Your task to perform on an android device: Check the weather Image 0: 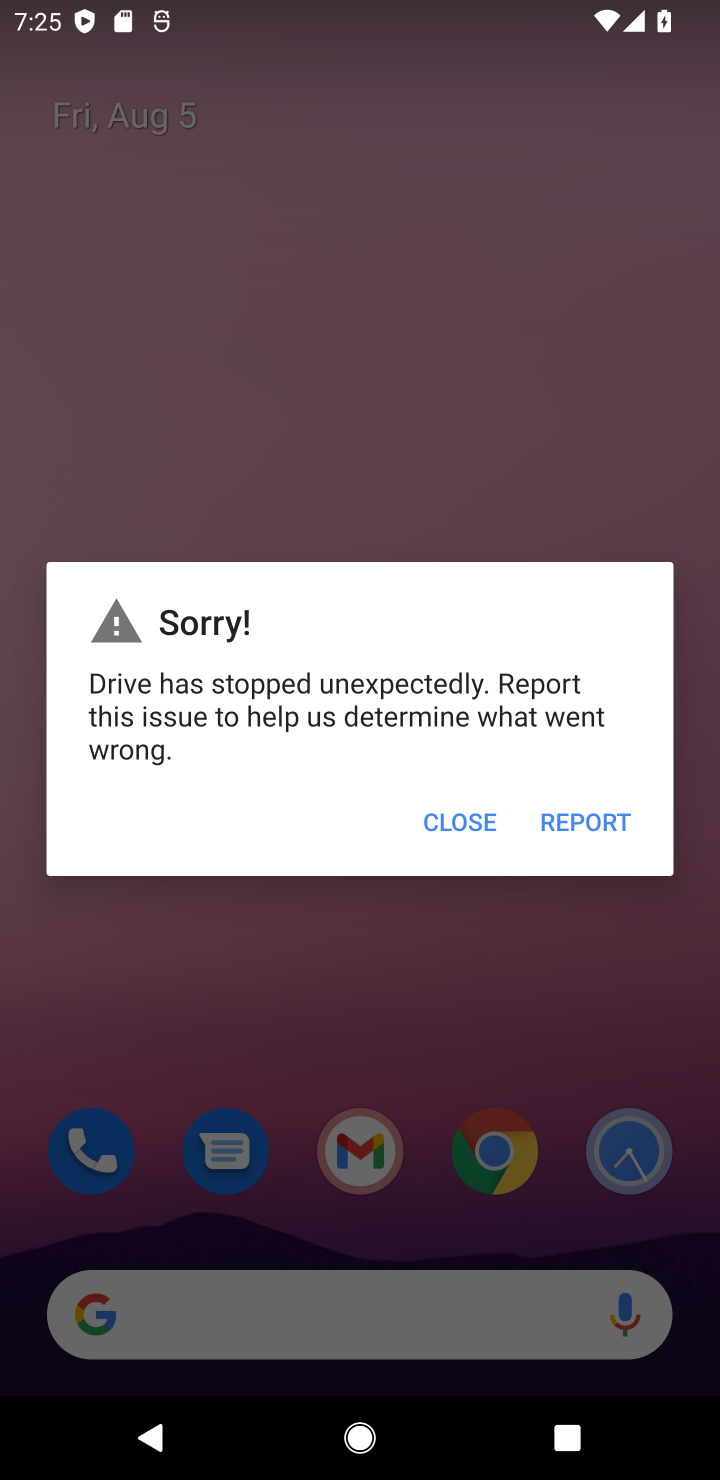
Step 0: click (459, 825)
Your task to perform on an android device: Check the weather Image 1: 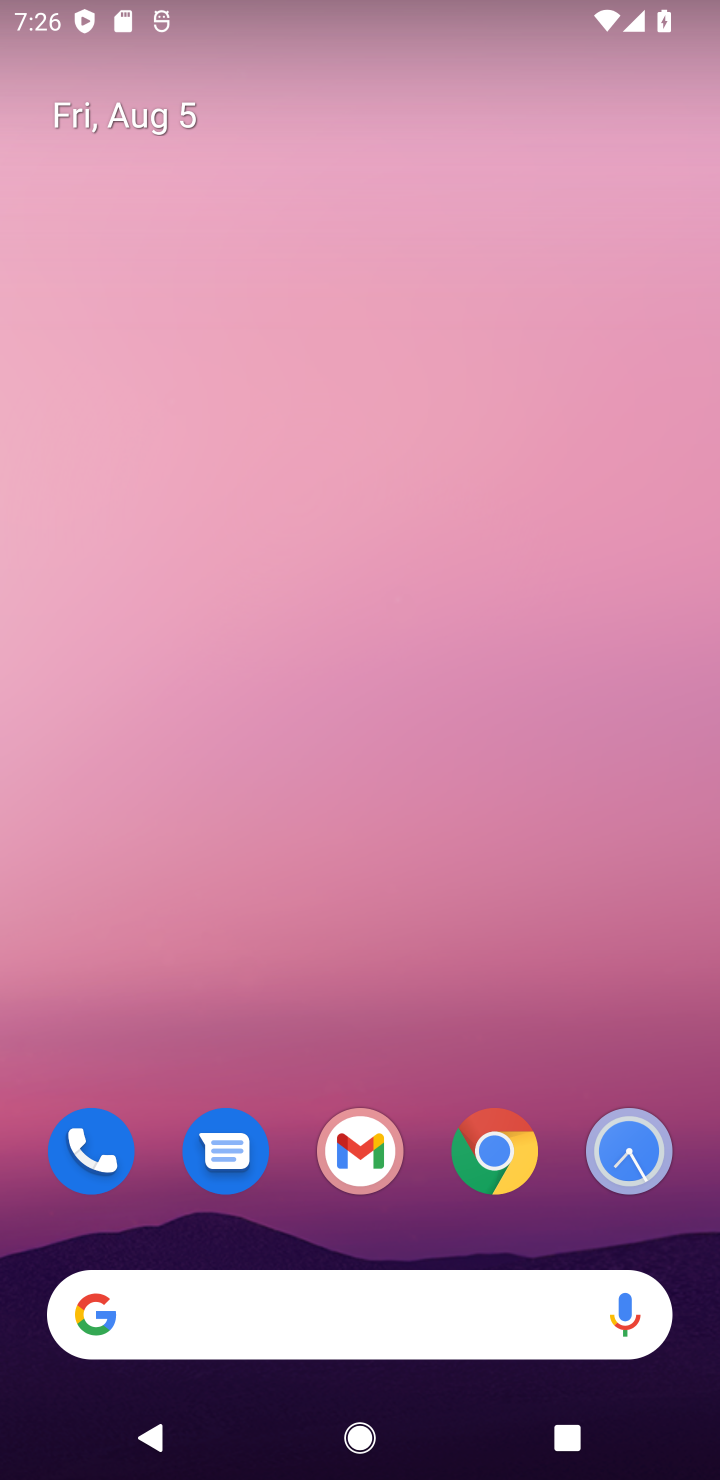
Step 1: click (337, 1346)
Your task to perform on an android device: Check the weather Image 2: 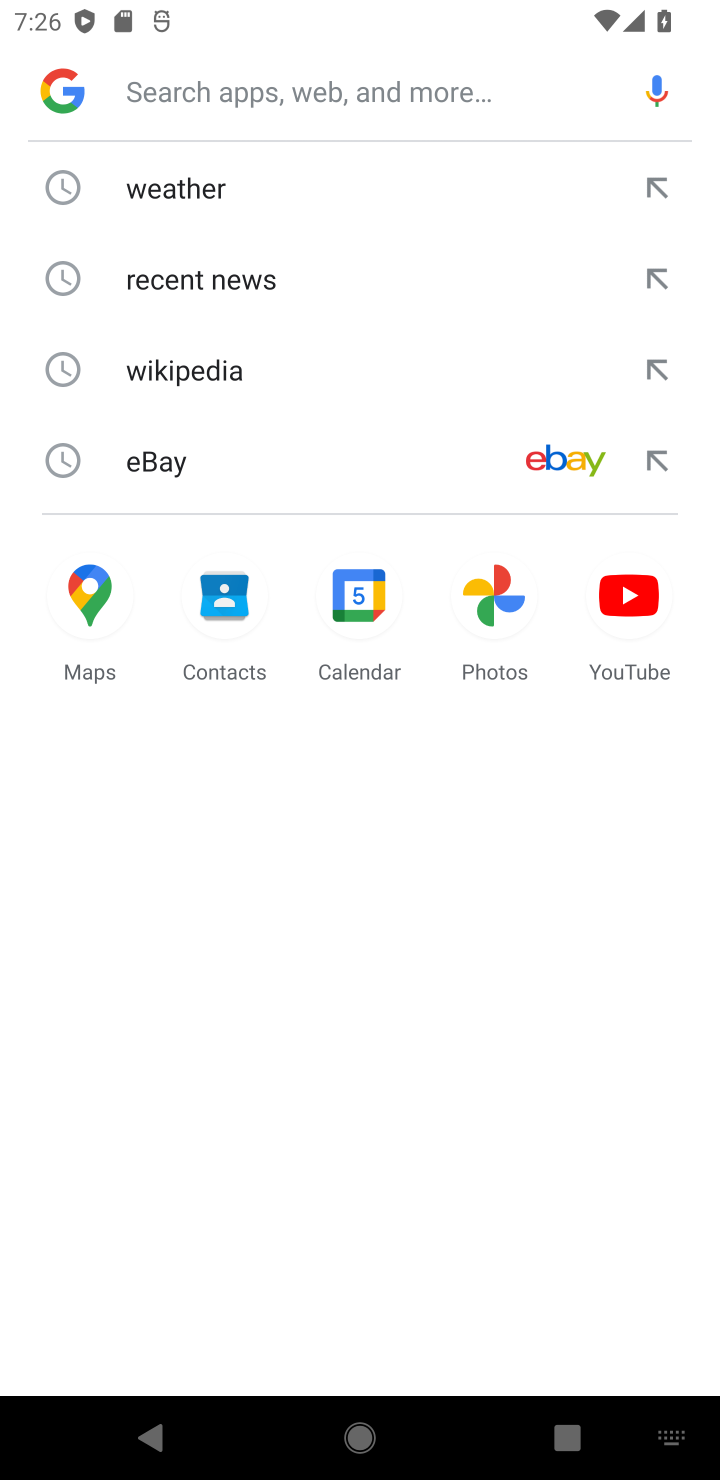
Step 2: click (218, 177)
Your task to perform on an android device: Check the weather Image 3: 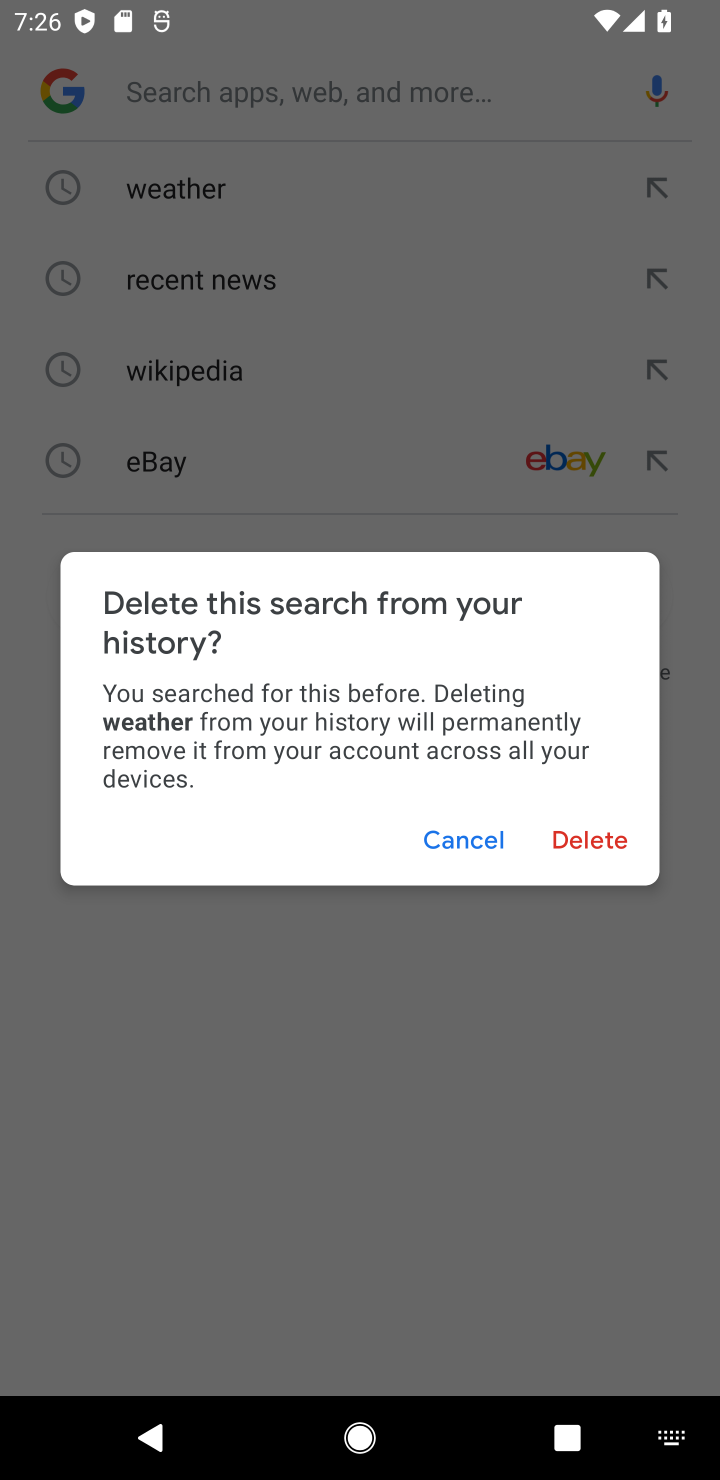
Step 3: click (465, 850)
Your task to perform on an android device: Check the weather Image 4: 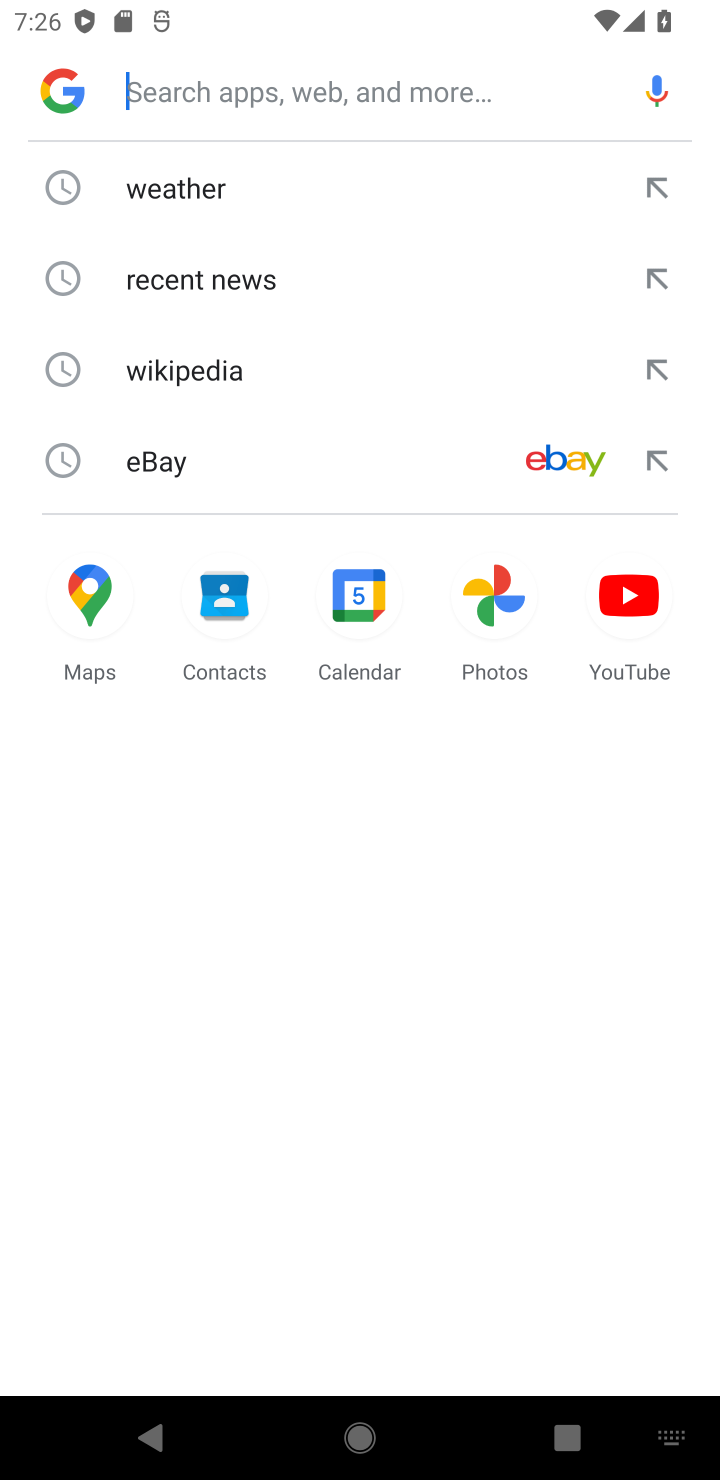
Step 4: click (151, 197)
Your task to perform on an android device: Check the weather Image 5: 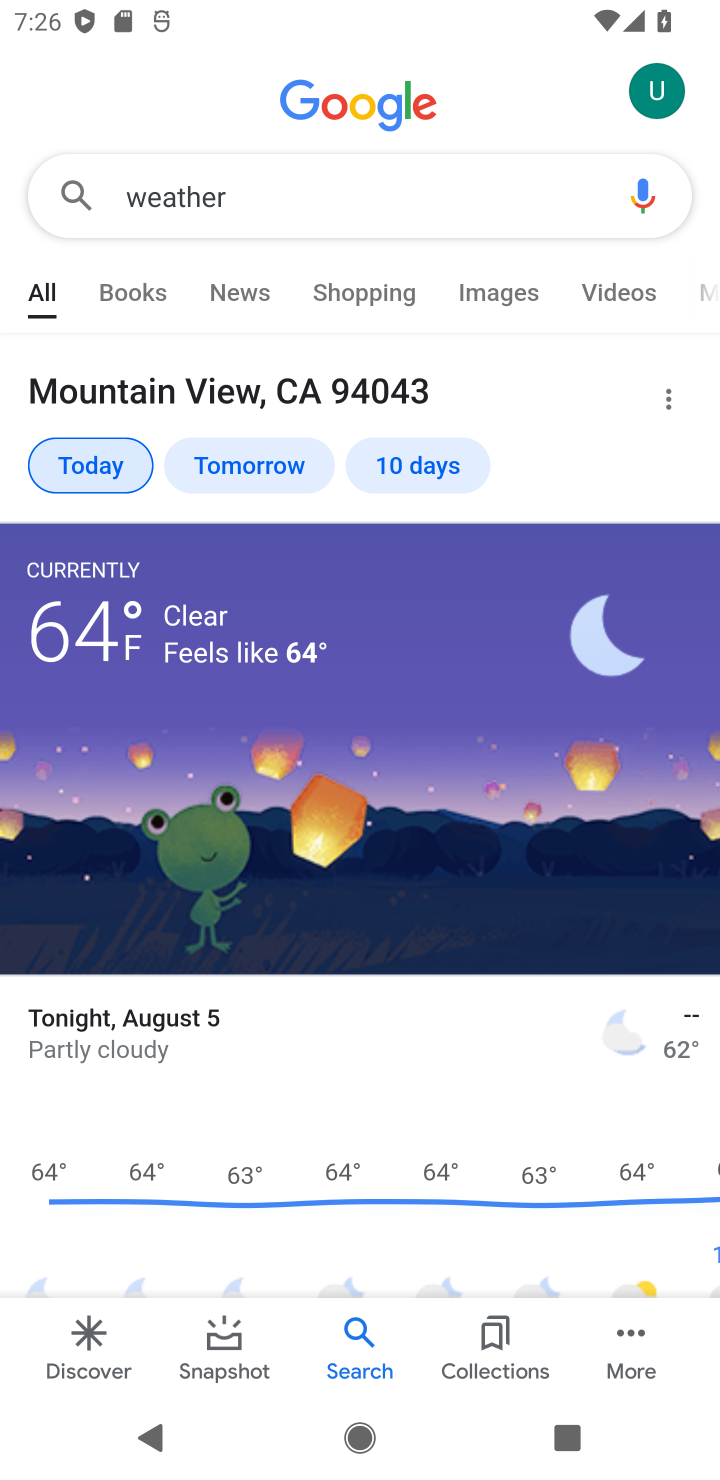
Step 5: task complete